Your task to perform on an android device: check the backup settings in the google photos Image 0: 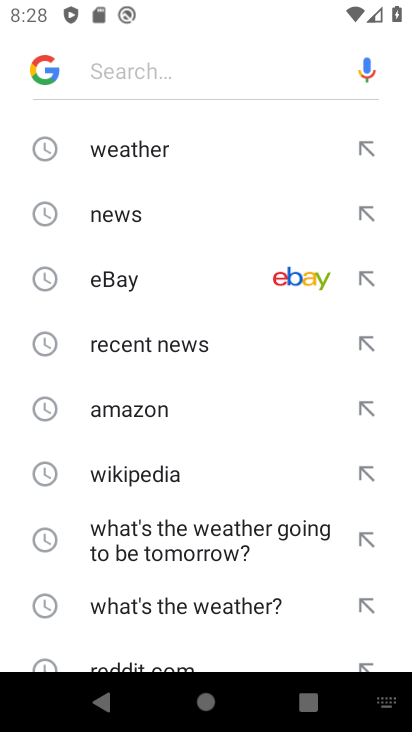
Step 0: press home button
Your task to perform on an android device: check the backup settings in the google photos Image 1: 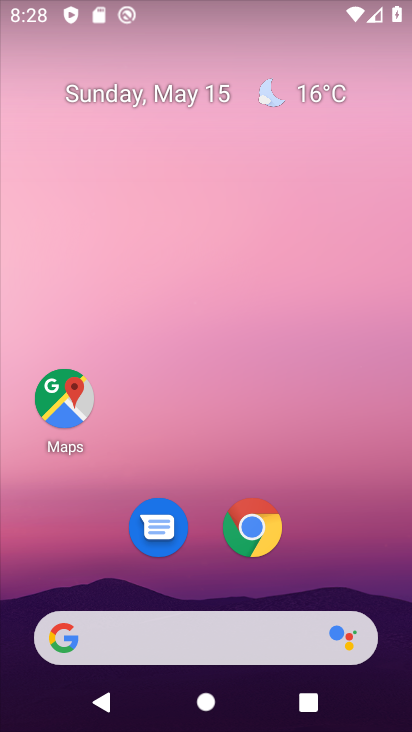
Step 1: drag from (389, 608) to (403, 28)
Your task to perform on an android device: check the backup settings in the google photos Image 2: 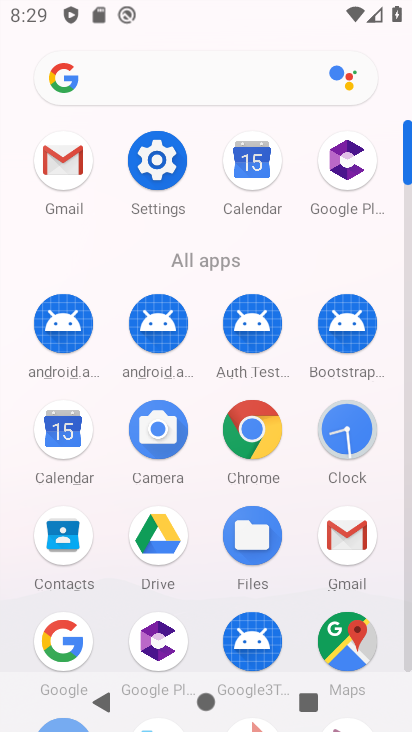
Step 2: drag from (403, 561) to (410, 489)
Your task to perform on an android device: check the backup settings in the google photos Image 3: 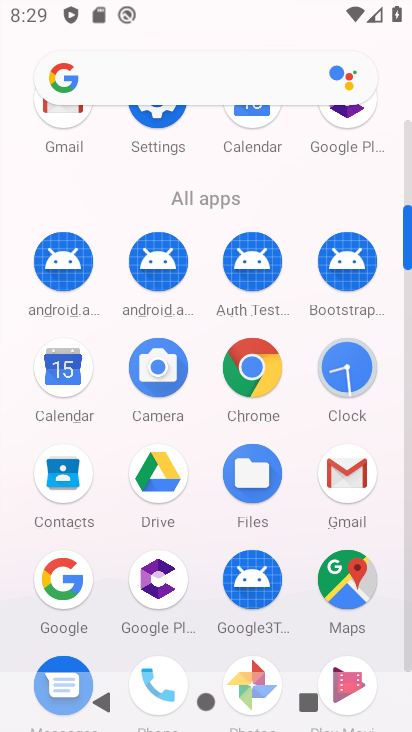
Step 3: click (406, 498)
Your task to perform on an android device: check the backup settings in the google photos Image 4: 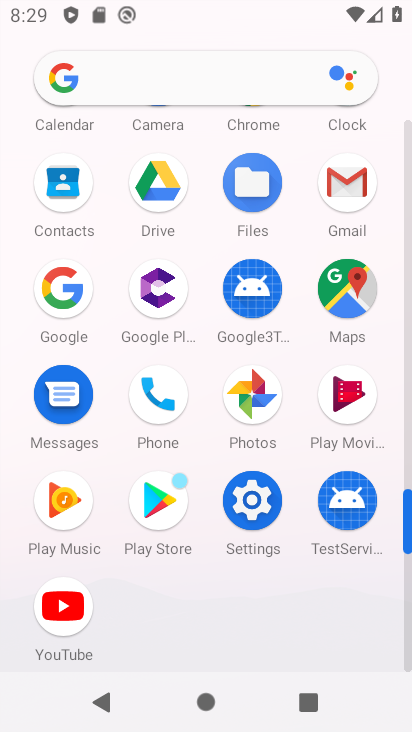
Step 4: click (252, 404)
Your task to perform on an android device: check the backup settings in the google photos Image 5: 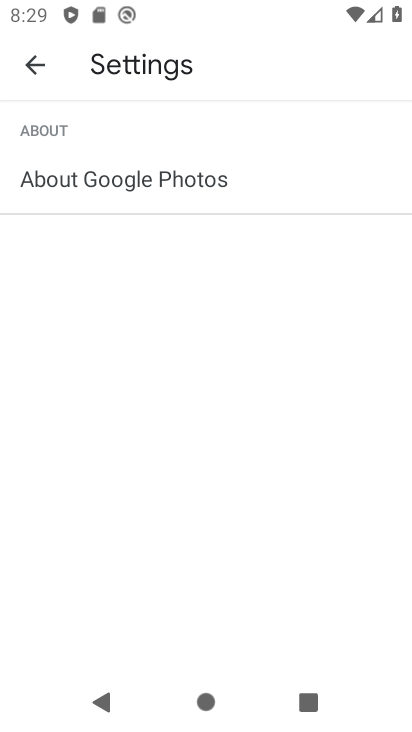
Step 5: click (36, 60)
Your task to perform on an android device: check the backup settings in the google photos Image 6: 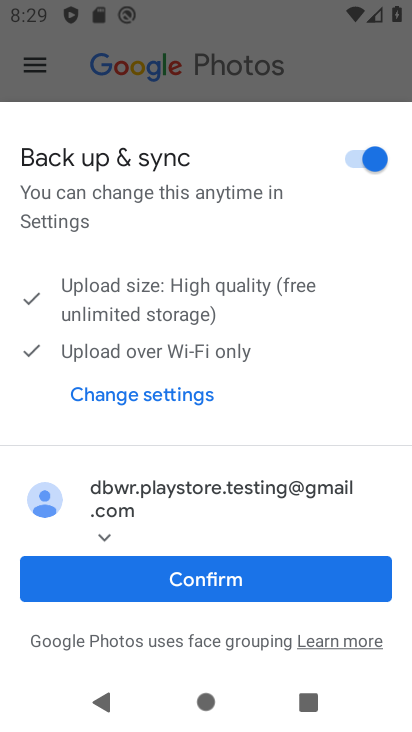
Step 6: click (173, 581)
Your task to perform on an android device: check the backup settings in the google photos Image 7: 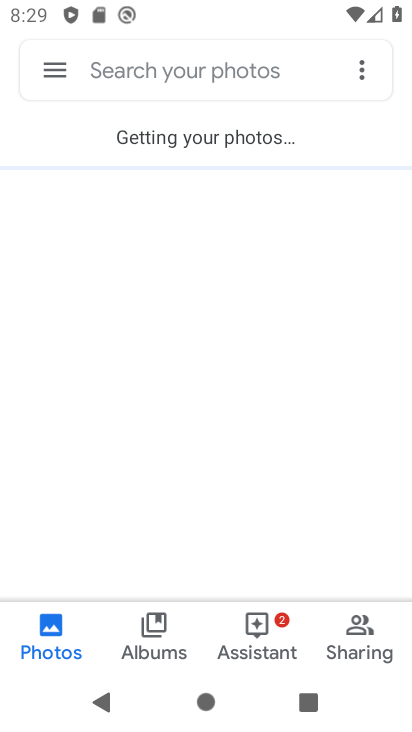
Step 7: click (59, 84)
Your task to perform on an android device: check the backup settings in the google photos Image 8: 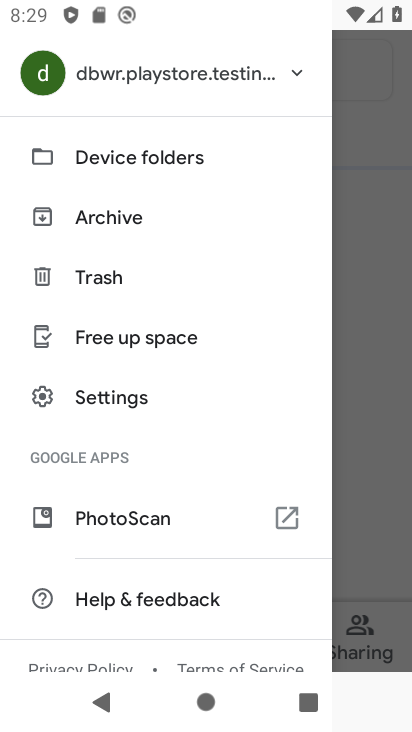
Step 8: click (110, 408)
Your task to perform on an android device: check the backup settings in the google photos Image 9: 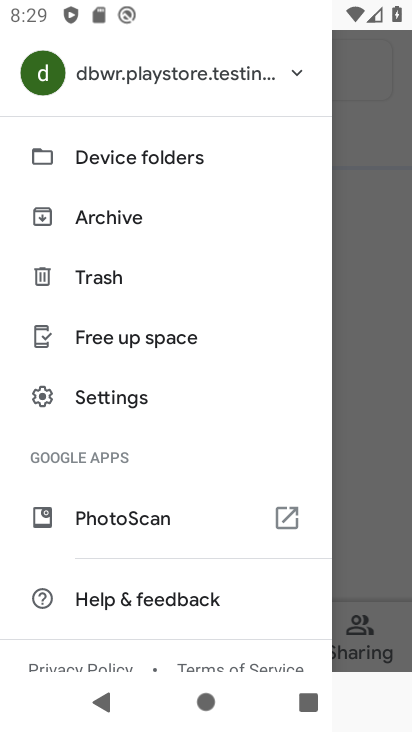
Step 9: click (88, 403)
Your task to perform on an android device: check the backup settings in the google photos Image 10: 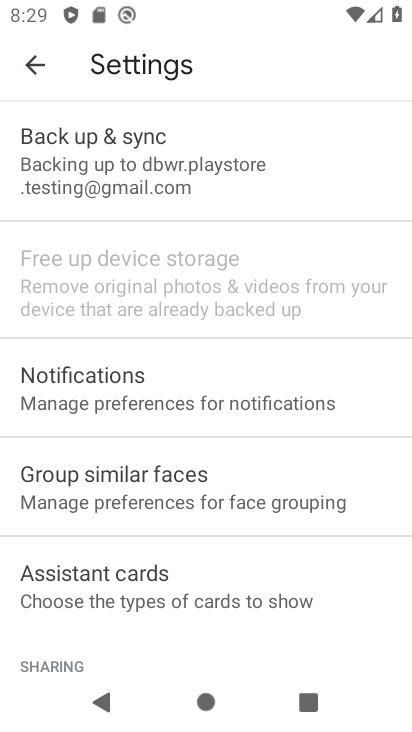
Step 10: click (72, 175)
Your task to perform on an android device: check the backup settings in the google photos Image 11: 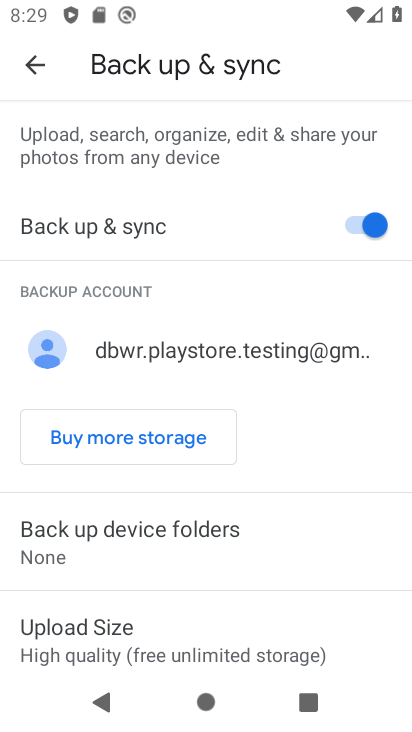
Step 11: task complete